Your task to perform on an android device: Open maps Image 0: 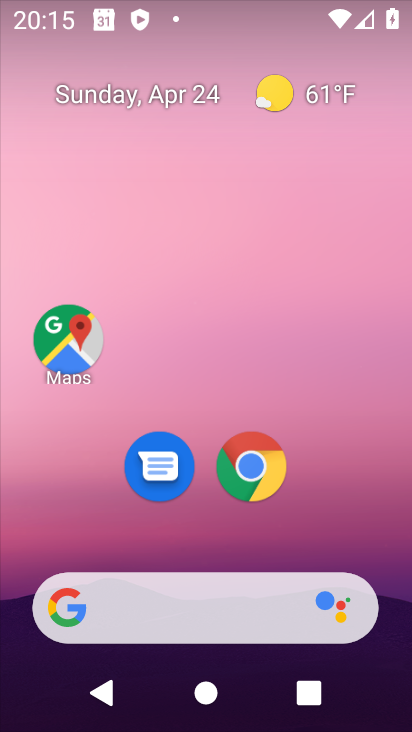
Step 0: click (69, 350)
Your task to perform on an android device: Open maps Image 1: 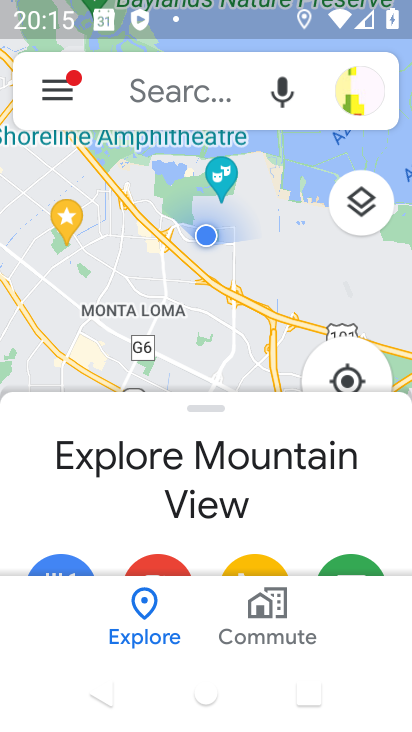
Step 1: task complete